Your task to perform on an android device: What is the news today? Image 0: 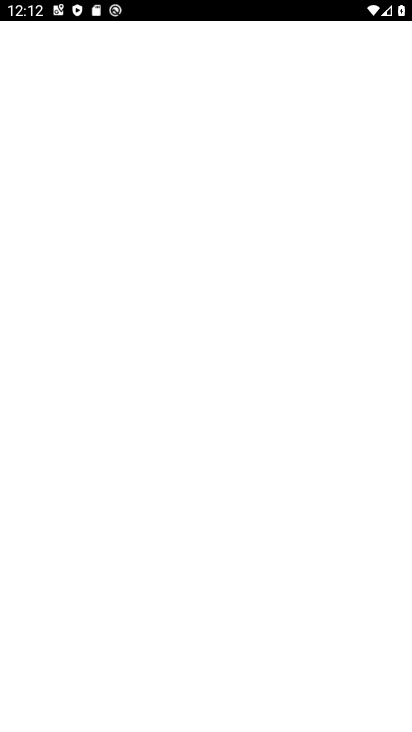
Step 0: click (57, 404)
Your task to perform on an android device: What is the news today? Image 1: 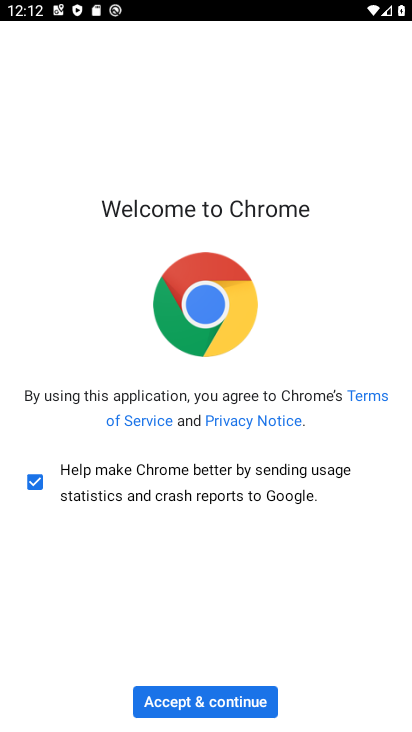
Step 1: press home button
Your task to perform on an android device: What is the news today? Image 2: 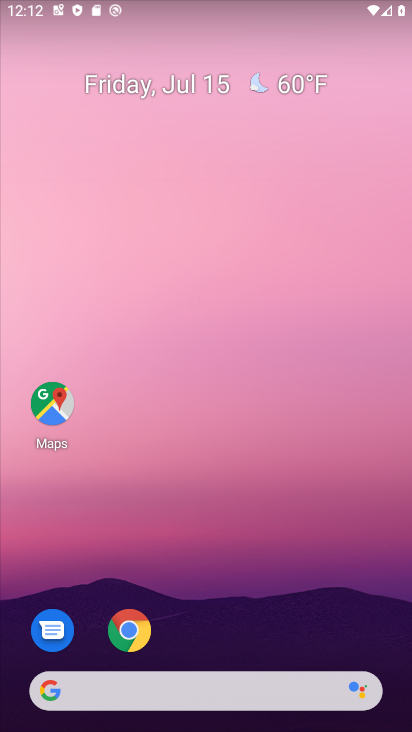
Step 2: click (124, 677)
Your task to perform on an android device: What is the news today? Image 3: 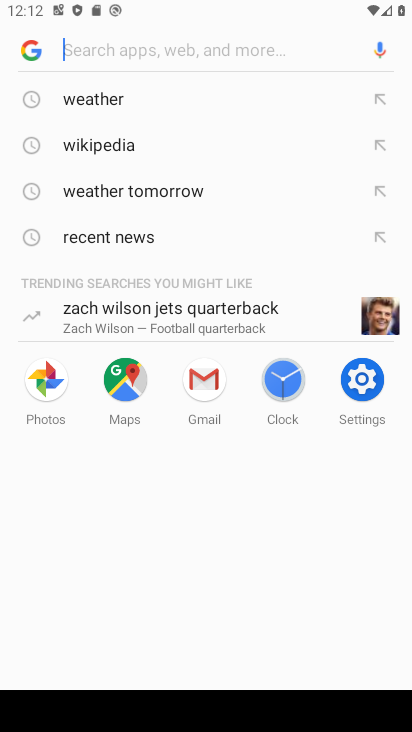
Step 3: type "What is the news today?"
Your task to perform on an android device: What is the news today? Image 4: 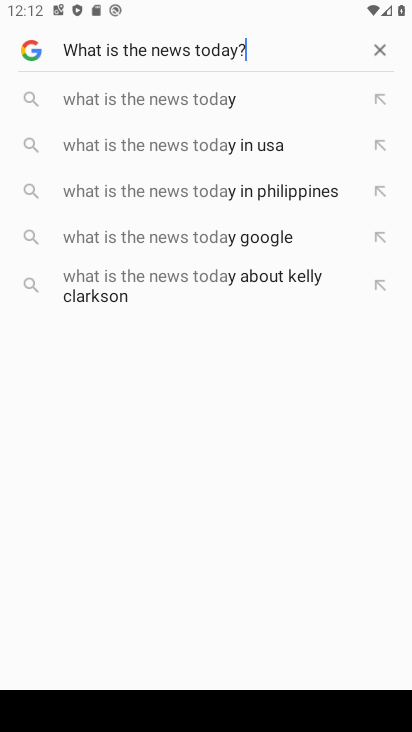
Step 4: type ""
Your task to perform on an android device: What is the news today? Image 5: 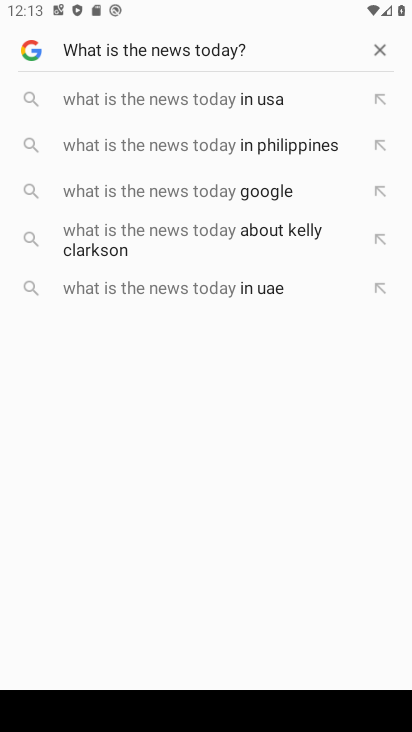
Step 5: type ""
Your task to perform on an android device: What is the news today? Image 6: 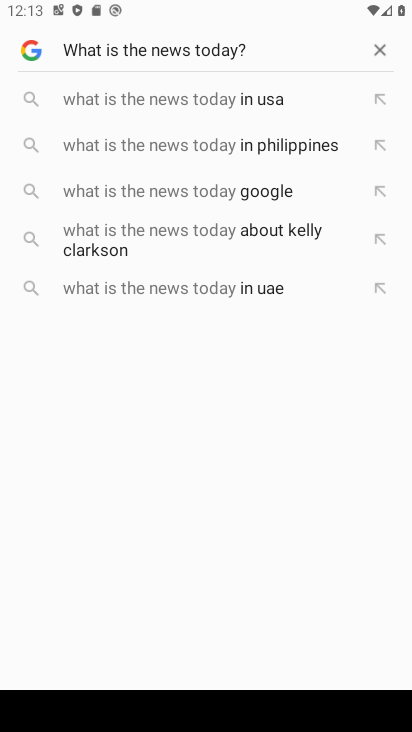
Step 6: type ""
Your task to perform on an android device: What is the news today? Image 7: 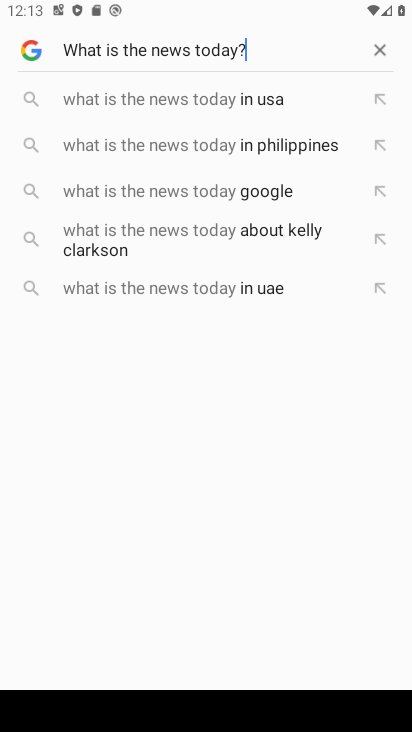
Step 7: task complete